Your task to perform on an android device: turn on airplane mode Image 0: 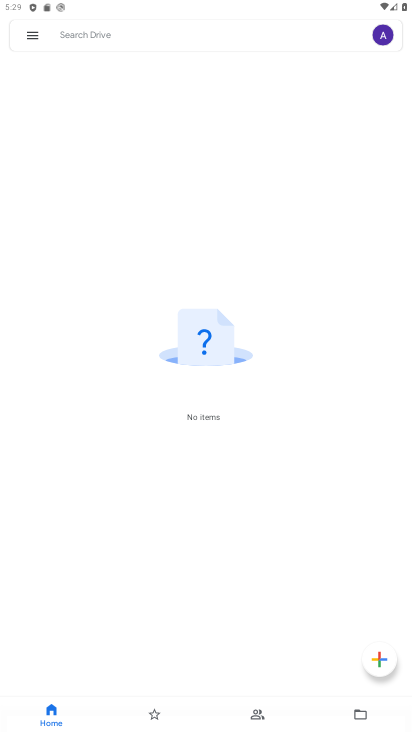
Step 0: drag from (356, 1) to (314, 506)
Your task to perform on an android device: turn on airplane mode Image 1: 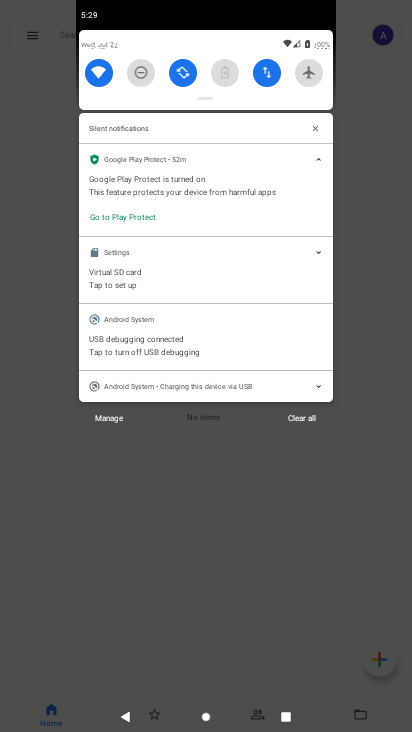
Step 1: click (307, 70)
Your task to perform on an android device: turn on airplane mode Image 2: 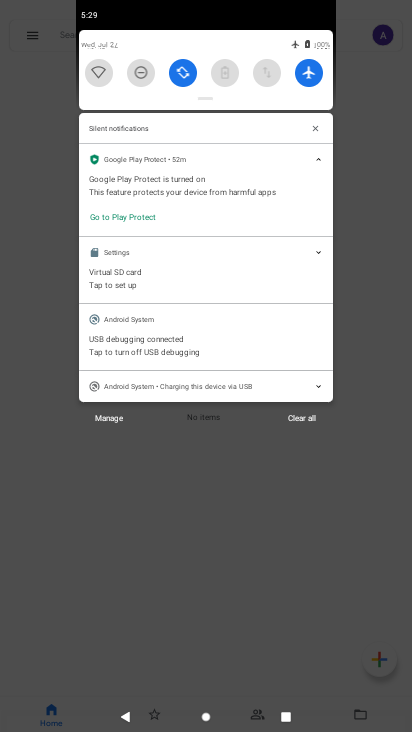
Step 2: task complete